Your task to perform on an android device: turn notification dots on Image 0: 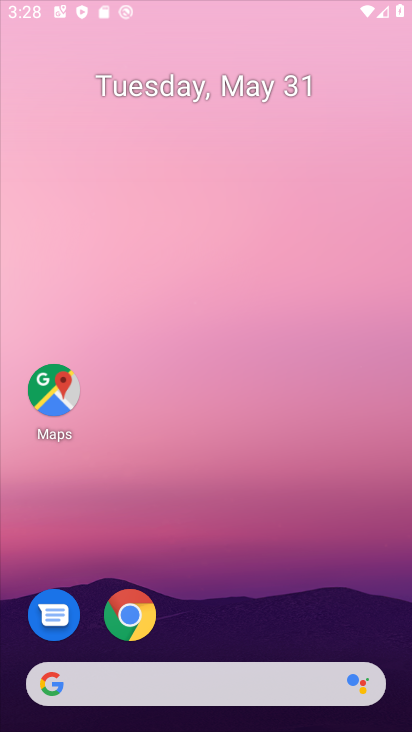
Step 0: drag from (274, 677) to (136, 97)
Your task to perform on an android device: turn notification dots on Image 1: 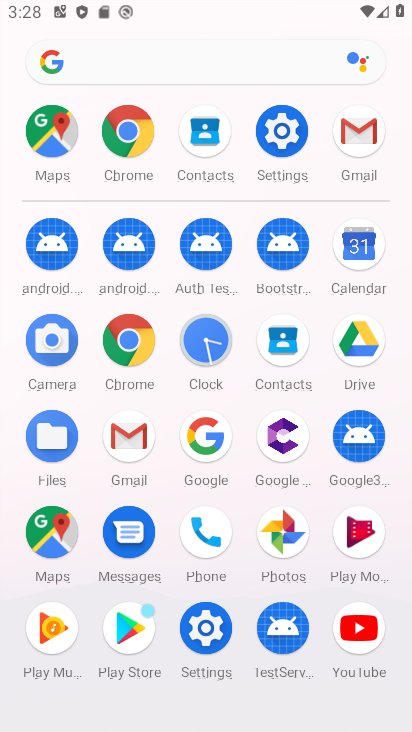
Step 1: click (280, 127)
Your task to perform on an android device: turn notification dots on Image 2: 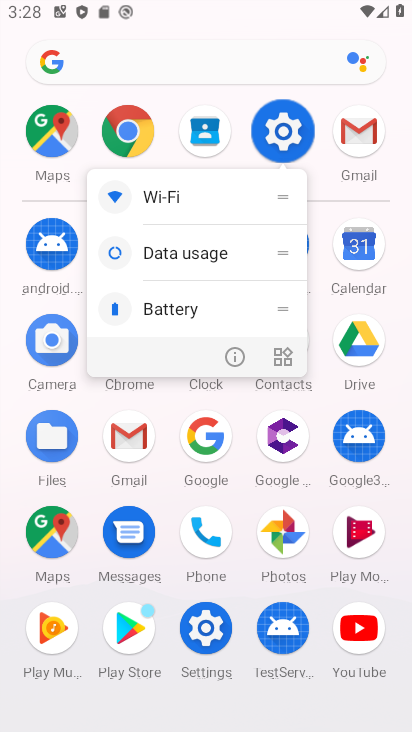
Step 2: click (276, 129)
Your task to perform on an android device: turn notification dots on Image 3: 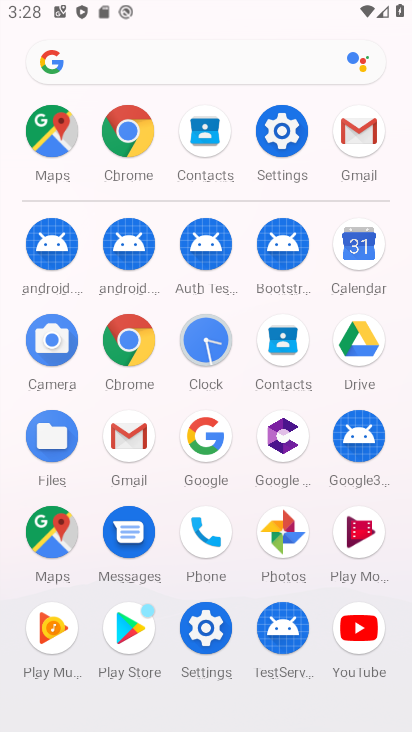
Step 3: click (269, 128)
Your task to perform on an android device: turn notification dots on Image 4: 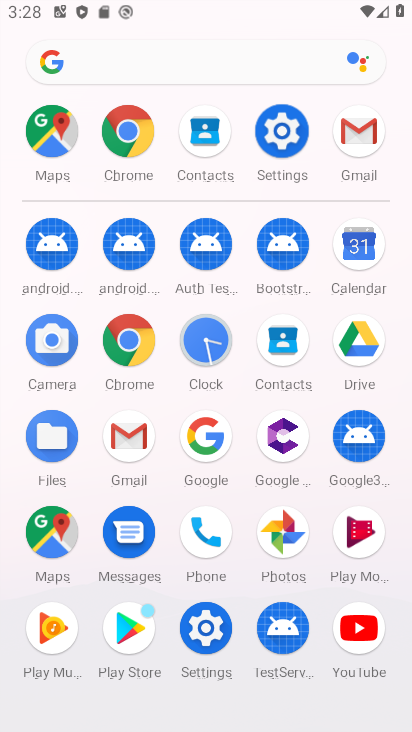
Step 4: click (269, 128)
Your task to perform on an android device: turn notification dots on Image 5: 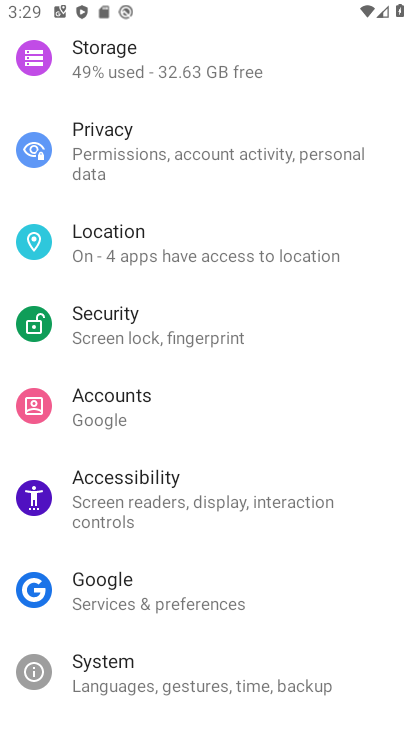
Step 5: click (272, 126)
Your task to perform on an android device: turn notification dots on Image 6: 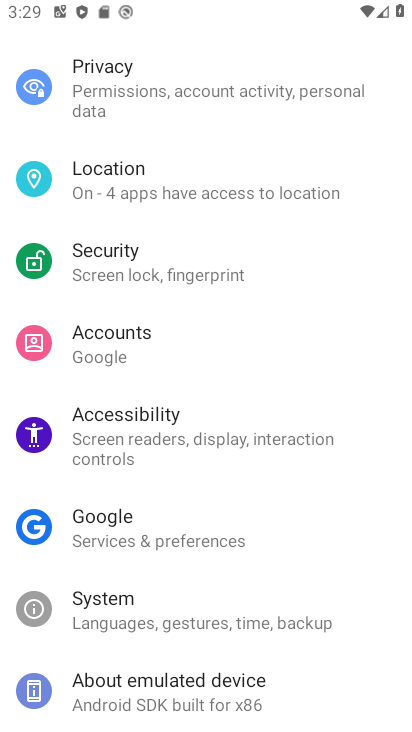
Step 6: click (272, 126)
Your task to perform on an android device: turn notification dots on Image 7: 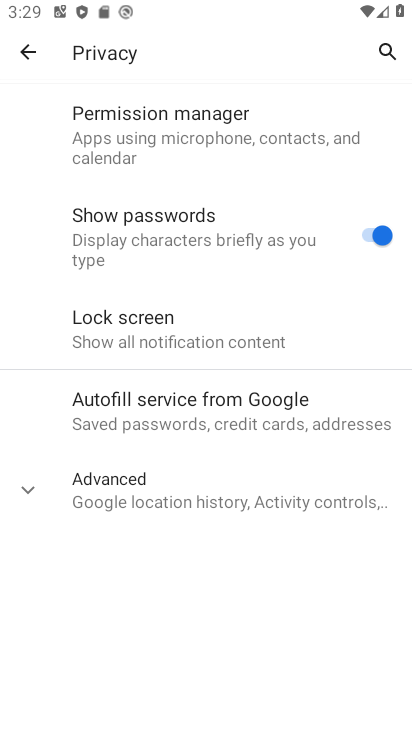
Step 7: click (34, 58)
Your task to perform on an android device: turn notification dots on Image 8: 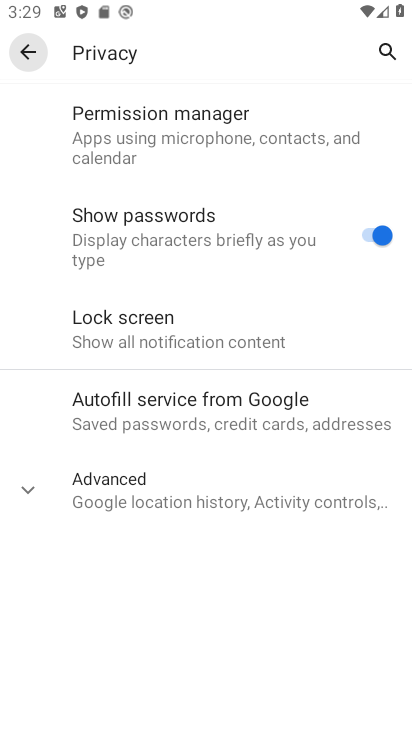
Step 8: click (34, 58)
Your task to perform on an android device: turn notification dots on Image 9: 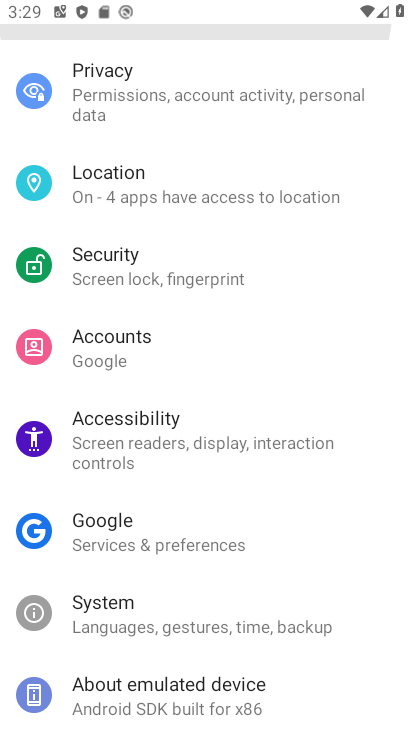
Step 9: click (34, 58)
Your task to perform on an android device: turn notification dots on Image 10: 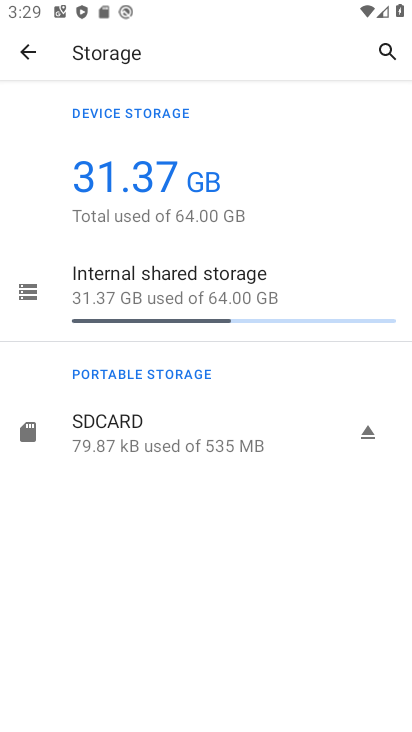
Step 10: click (24, 51)
Your task to perform on an android device: turn notification dots on Image 11: 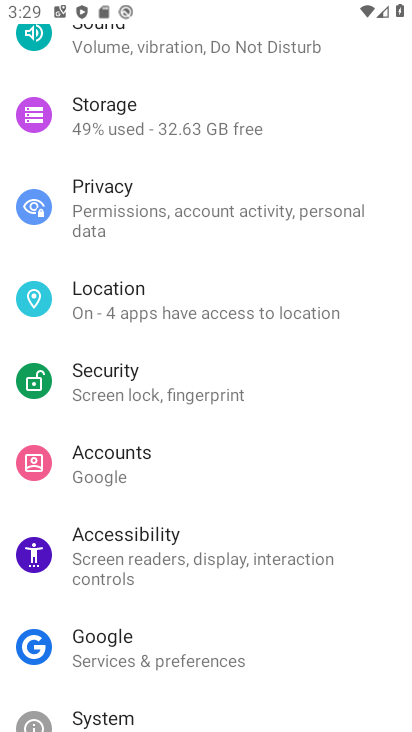
Step 11: click (205, 507)
Your task to perform on an android device: turn notification dots on Image 12: 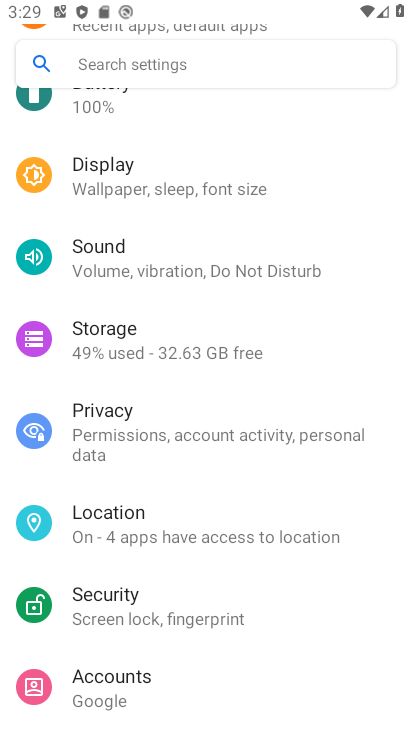
Step 12: drag from (205, 270) to (301, 627)
Your task to perform on an android device: turn notification dots on Image 13: 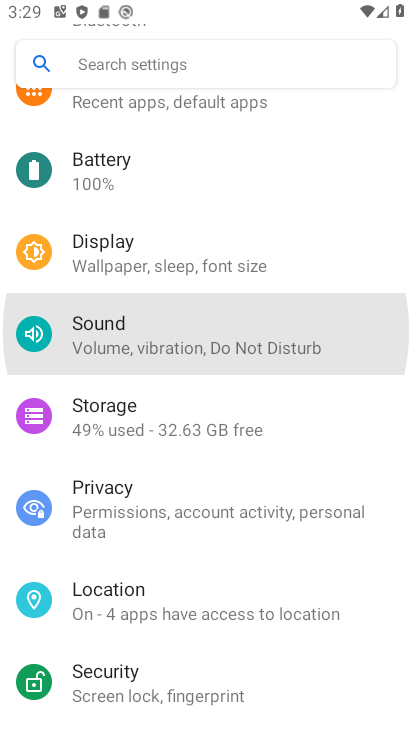
Step 13: drag from (230, 274) to (233, 701)
Your task to perform on an android device: turn notification dots on Image 14: 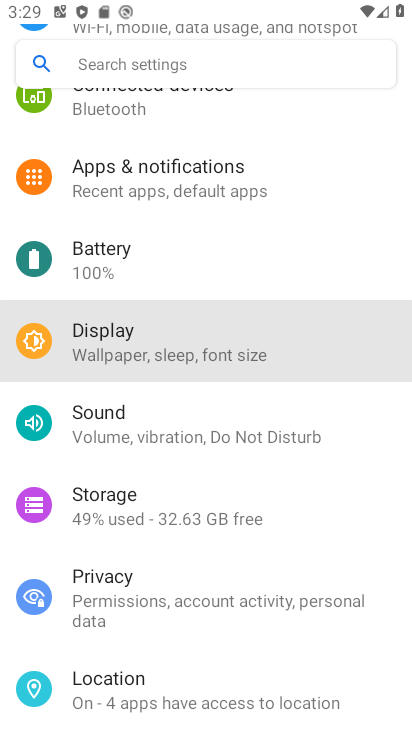
Step 14: drag from (178, 323) to (188, 692)
Your task to perform on an android device: turn notification dots on Image 15: 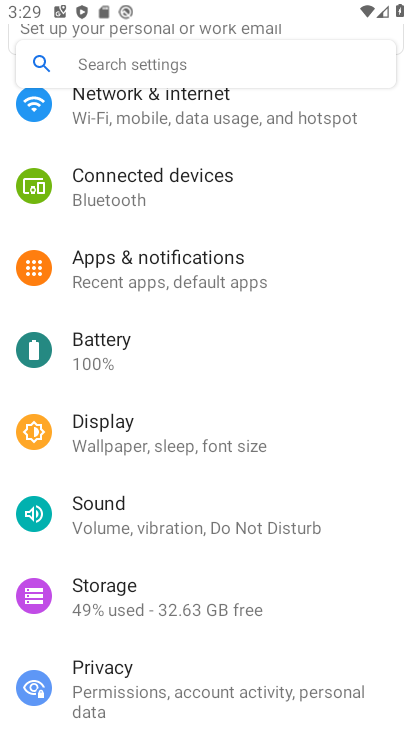
Step 15: click (171, 266)
Your task to perform on an android device: turn notification dots on Image 16: 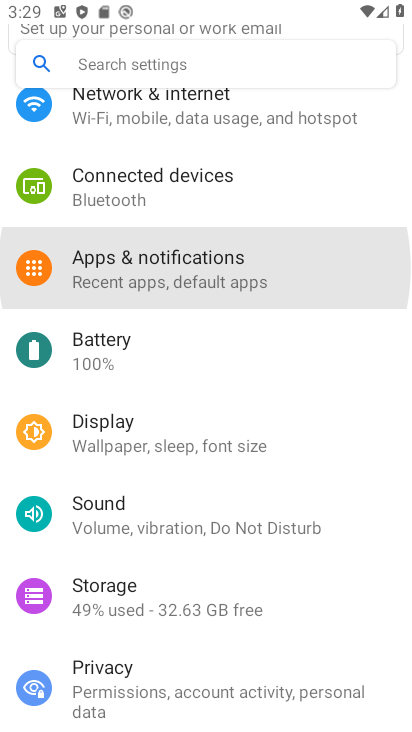
Step 16: click (171, 266)
Your task to perform on an android device: turn notification dots on Image 17: 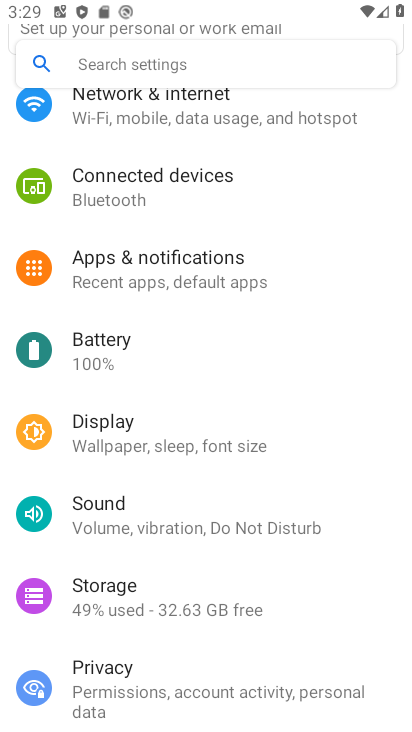
Step 17: click (170, 266)
Your task to perform on an android device: turn notification dots on Image 18: 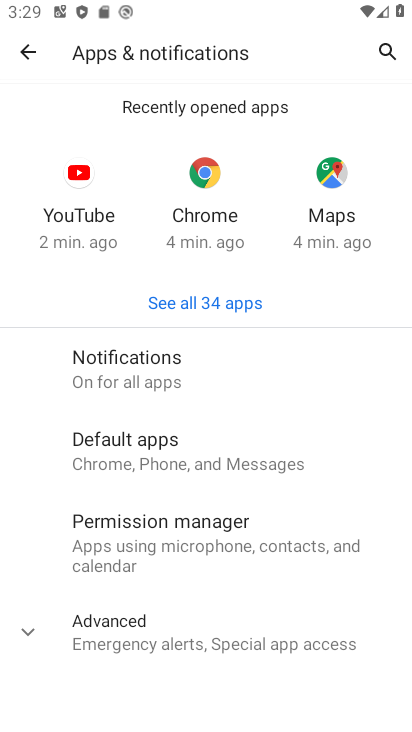
Step 18: click (122, 369)
Your task to perform on an android device: turn notification dots on Image 19: 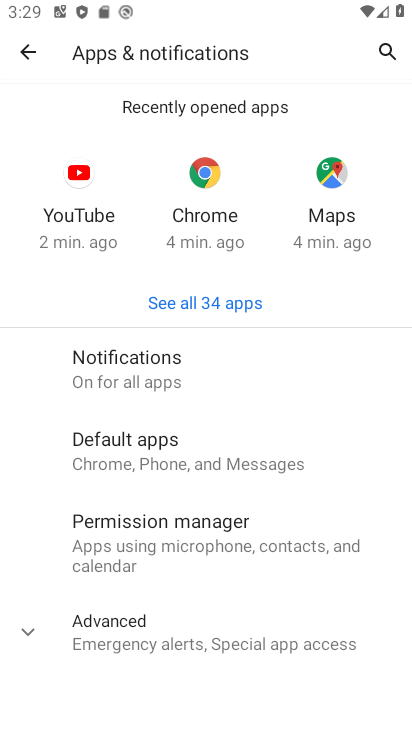
Step 19: click (118, 367)
Your task to perform on an android device: turn notification dots on Image 20: 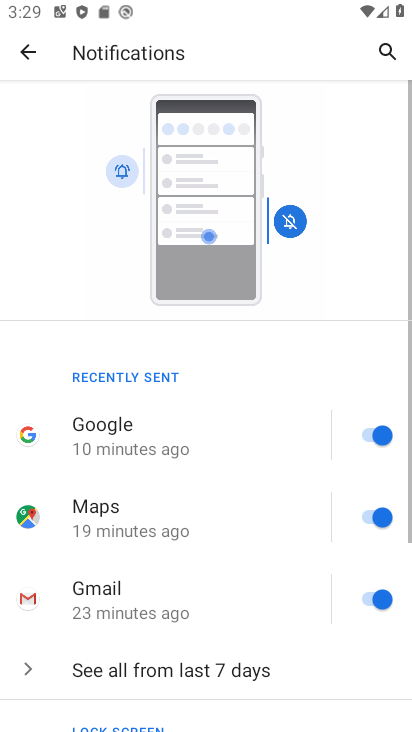
Step 20: drag from (193, 585) to (142, 241)
Your task to perform on an android device: turn notification dots on Image 21: 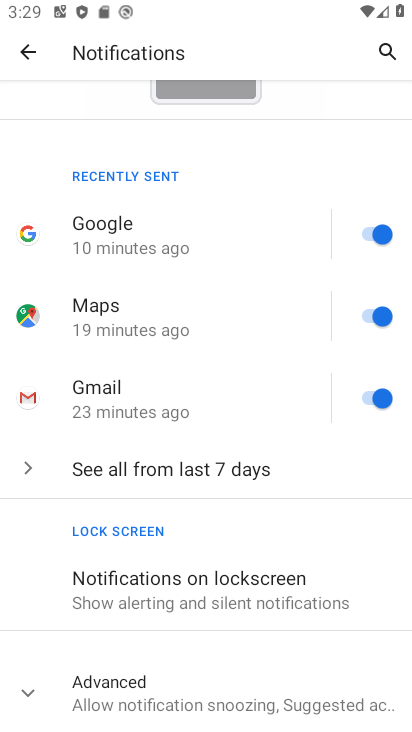
Step 21: drag from (260, 554) to (205, 189)
Your task to perform on an android device: turn notification dots on Image 22: 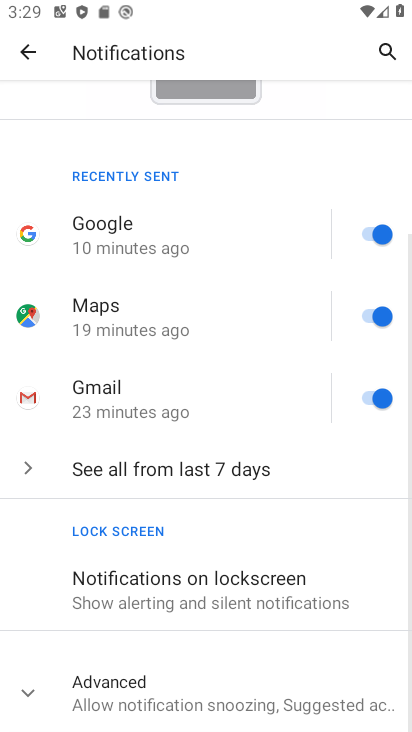
Step 22: drag from (266, 467) to (250, 120)
Your task to perform on an android device: turn notification dots on Image 23: 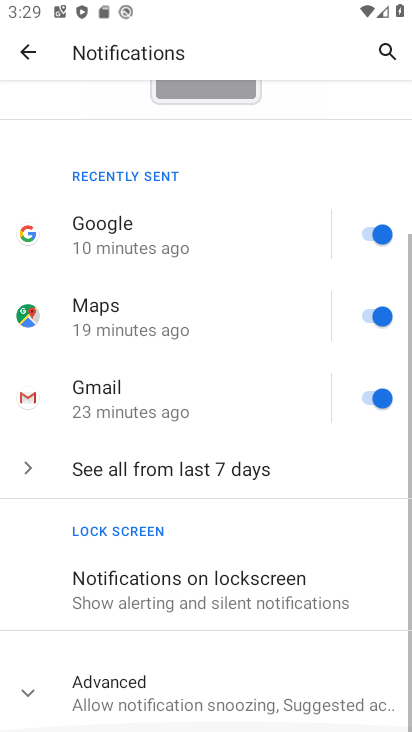
Step 23: click (89, 690)
Your task to perform on an android device: turn notification dots on Image 24: 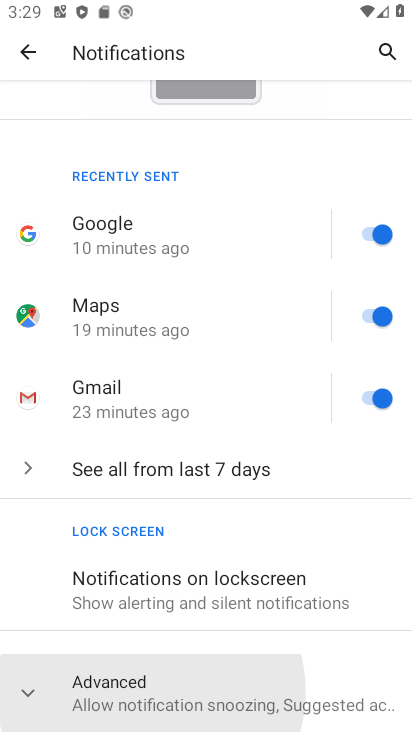
Step 24: click (92, 694)
Your task to perform on an android device: turn notification dots on Image 25: 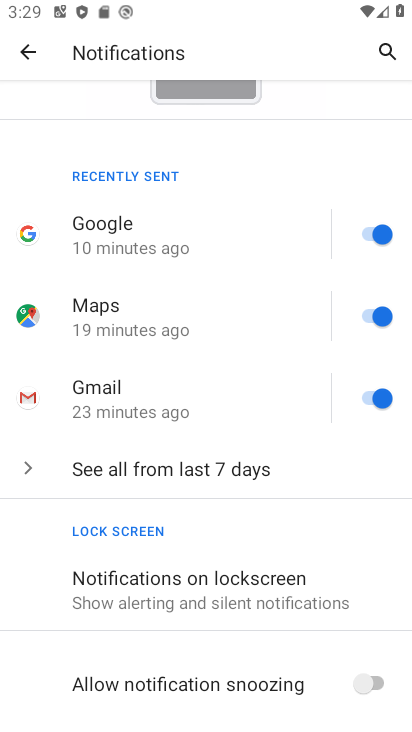
Step 25: task complete